Your task to perform on an android device: Search for Mexican restaurants on Maps Image 0: 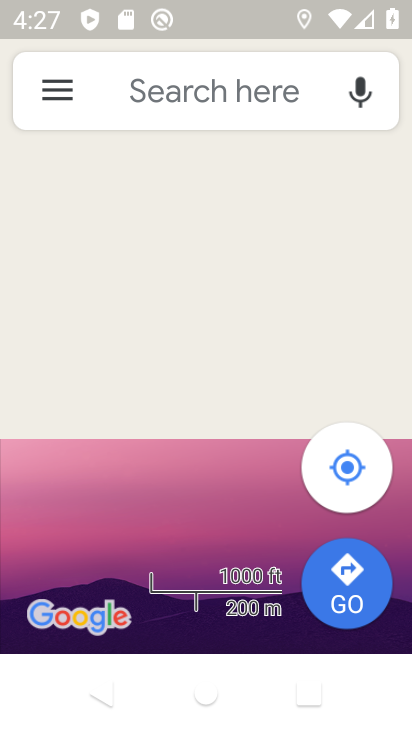
Step 0: press home button
Your task to perform on an android device: Search for Mexican restaurants on Maps Image 1: 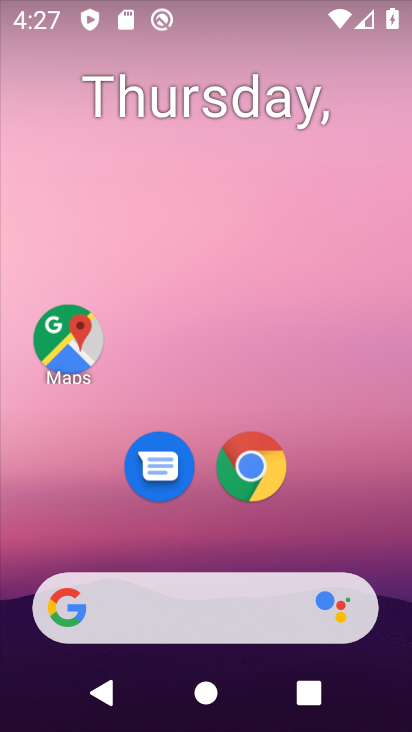
Step 1: click (68, 345)
Your task to perform on an android device: Search for Mexican restaurants on Maps Image 2: 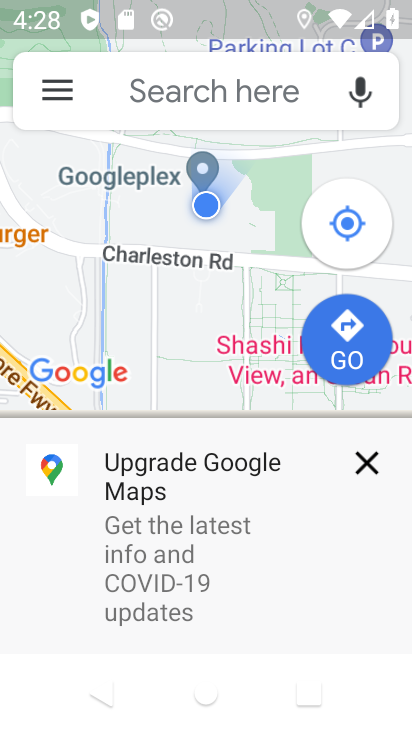
Step 2: click (151, 85)
Your task to perform on an android device: Search for Mexican restaurants on Maps Image 3: 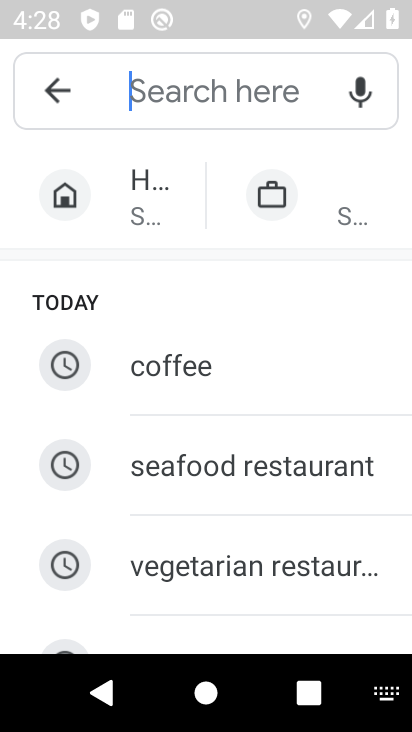
Step 3: drag from (204, 587) to (202, 200)
Your task to perform on an android device: Search for Mexican restaurants on Maps Image 4: 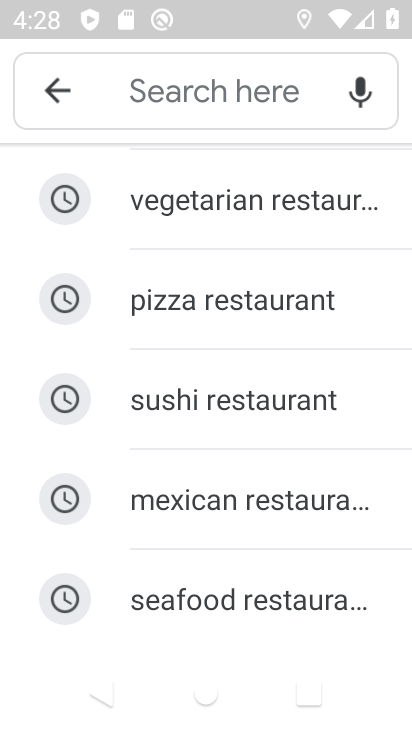
Step 4: click (206, 508)
Your task to perform on an android device: Search for Mexican restaurants on Maps Image 5: 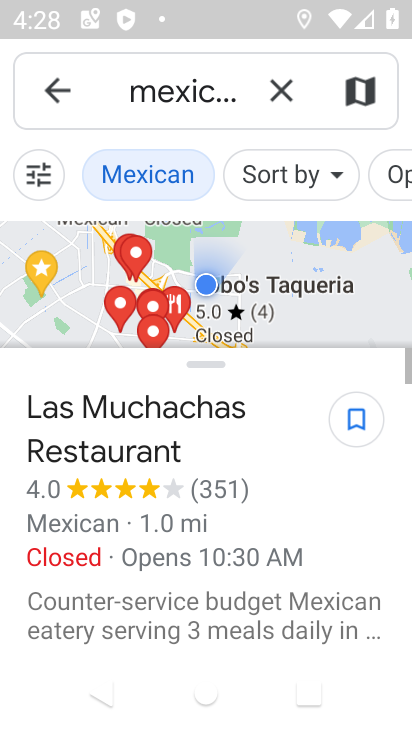
Step 5: task complete